Your task to perform on an android device: What's the weather? Image 0: 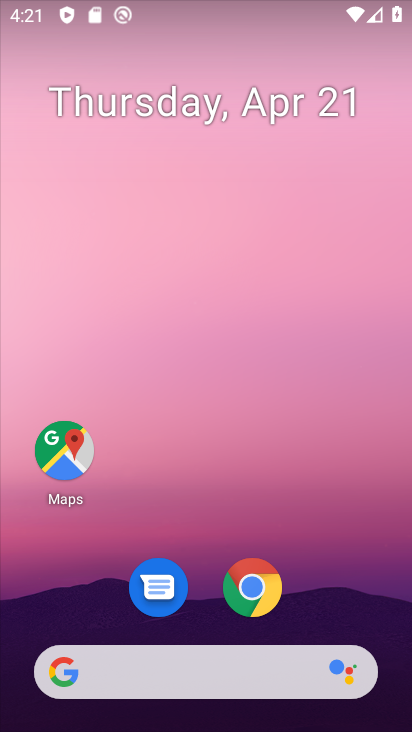
Step 0: drag from (2, 312) to (338, 279)
Your task to perform on an android device: What's the weather? Image 1: 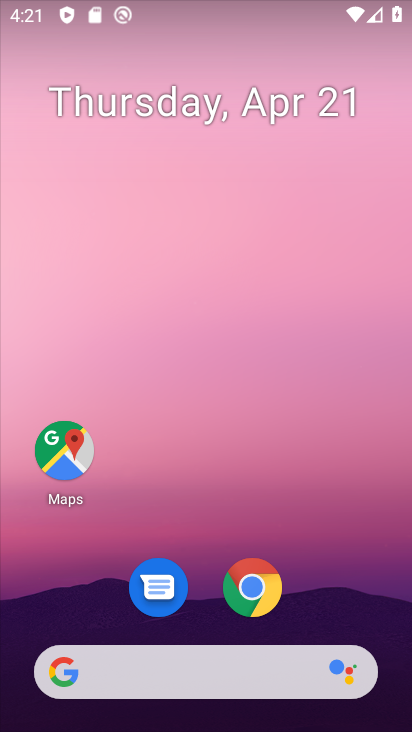
Step 1: drag from (89, 312) to (384, 288)
Your task to perform on an android device: What's the weather? Image 2: 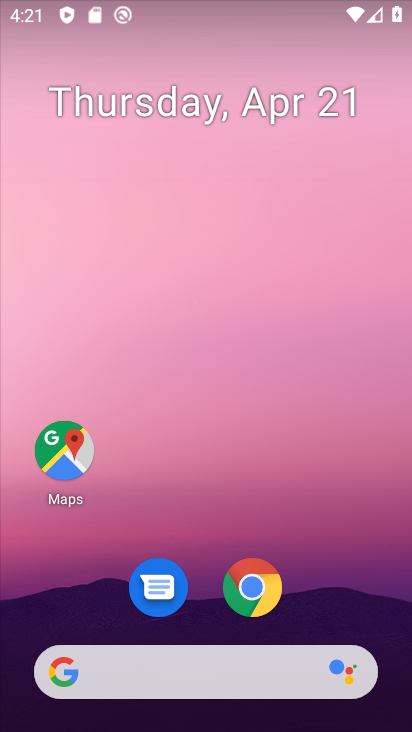
Step 2: drag from (9, 325) to (411, 280)
Your task to perform on an android device: What's the weather? Image 3: 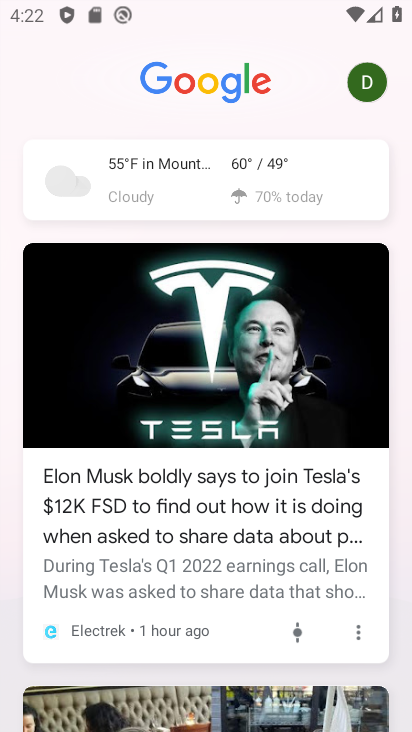
Step 3: click (234, 173)
Your task to perform on an android device: What's the weather? Image 4: 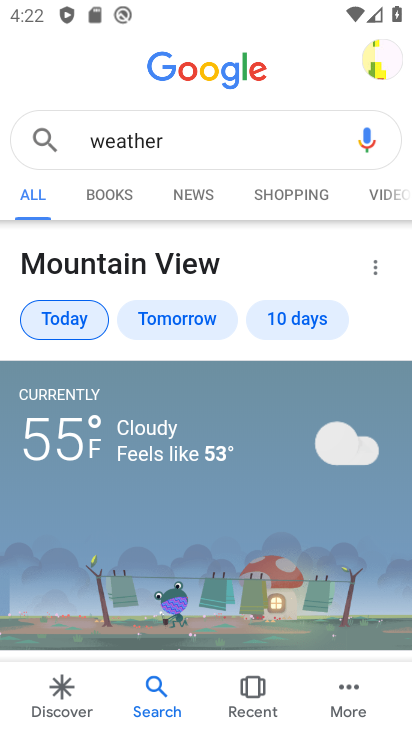
Step 4: task complete